Your task to perform on an android device: Set the phone to "Do not disturb". Image 0: 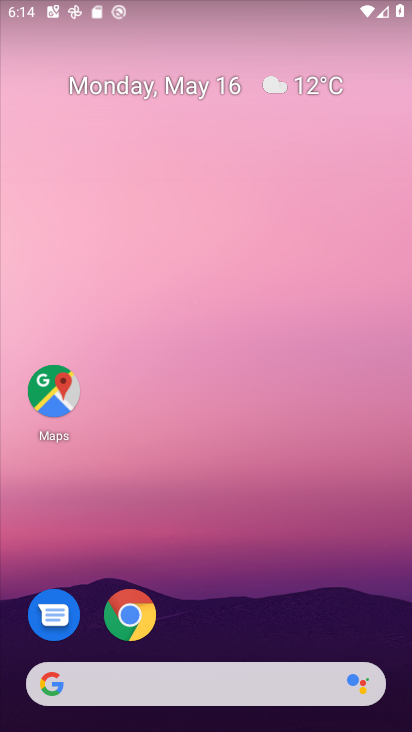
Step 0: drag from (250, 575) to (293, 211)
Your task to perform on an android device: Set the phone to "Do not disturb". Image 1: 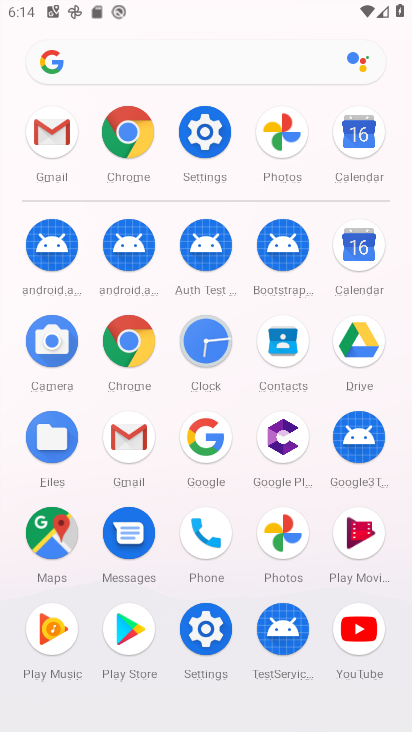
Step 1: click (195, 649)
Your task to perform on an android device: Set the phone to "Do not disturb". Image 2: 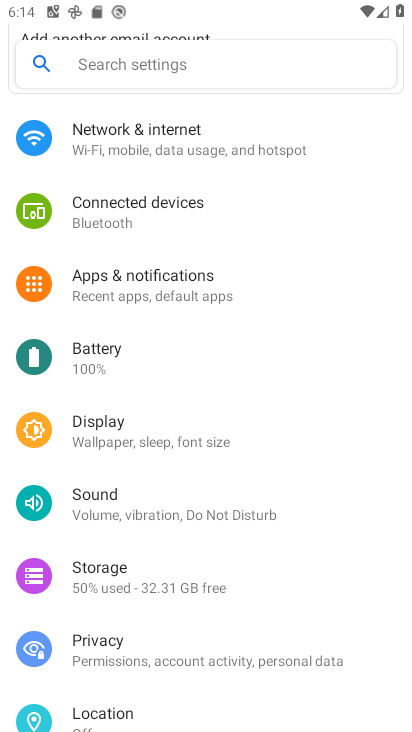
Step 2: click (109, 516)
Your task to perform on an android device: Set the phone to "Do not disturb". Image 3: 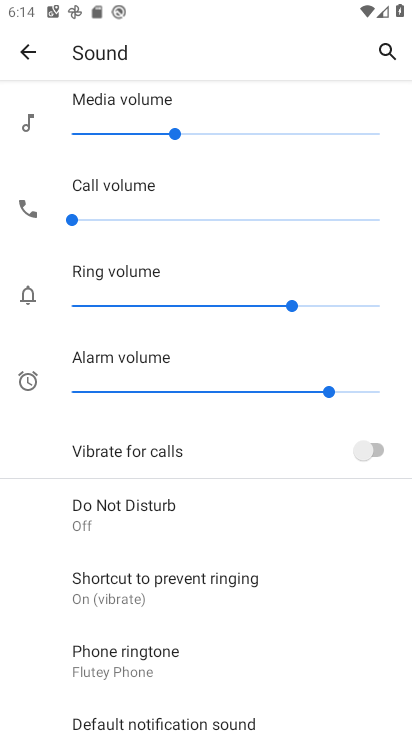
Step 3: click (138, 520)
Your task to perform on an android device: Set the phone to "Do not disturb". Image 4: 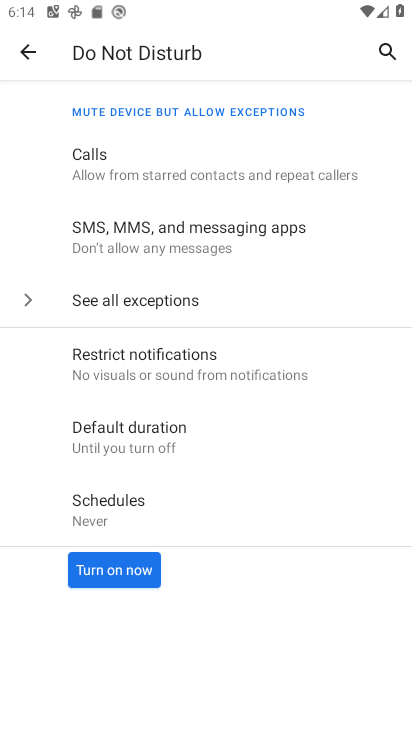
Step 4: click (102, 575)
Your task to perform on an android device: Set the phone to "Do not disturb". Image 5: 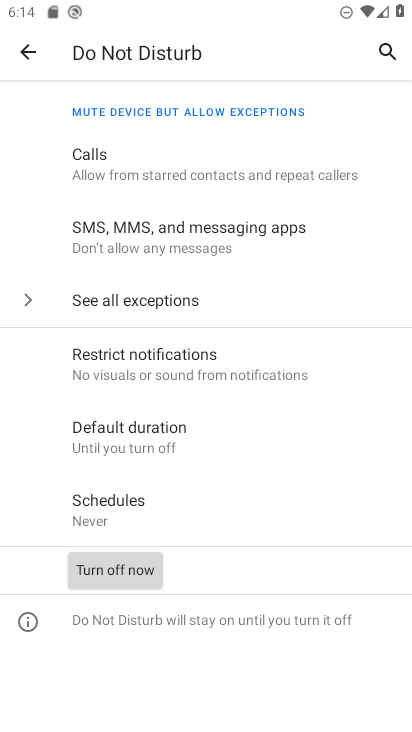
Step 5: task complete